Your task to perform on an android device: When is my next meeting? Image 0: 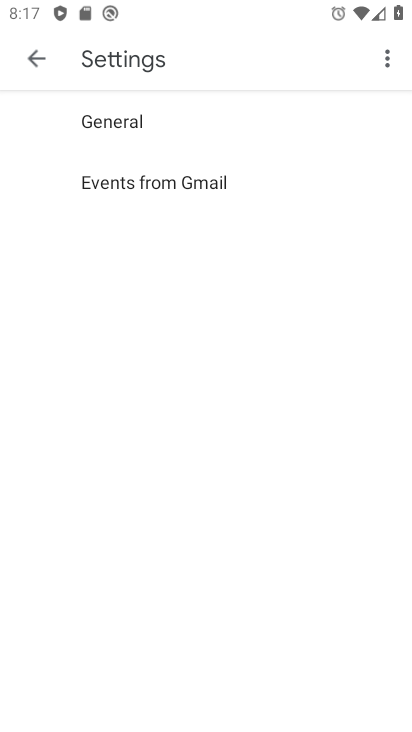
Step 0: press home button
Your task to perform on an android device: When is my next meeting? Image 1: 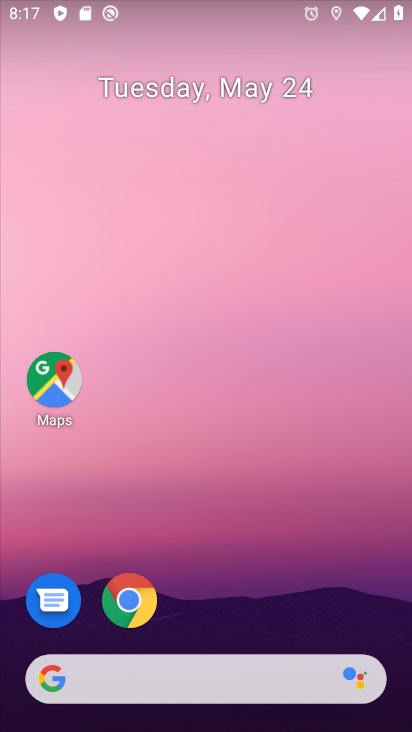
Step 1: drag from (210, 708) to (212, 90)
Your task to perform on an android device: When is my next meeting? Image 2: 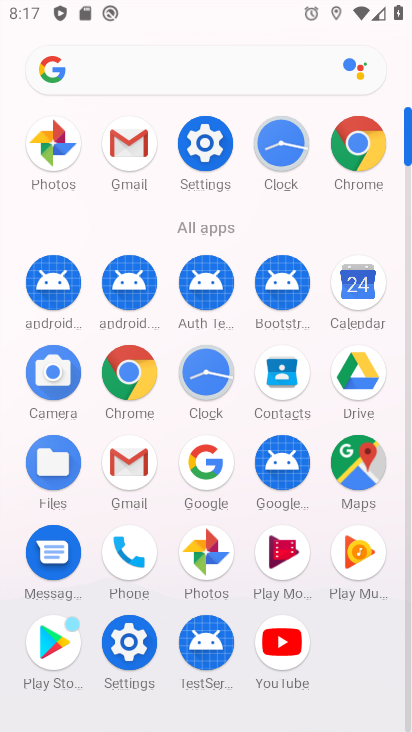
Step 2: click (354, 279)
Your task to perform on an android device: When is my next meeting? Image 3: 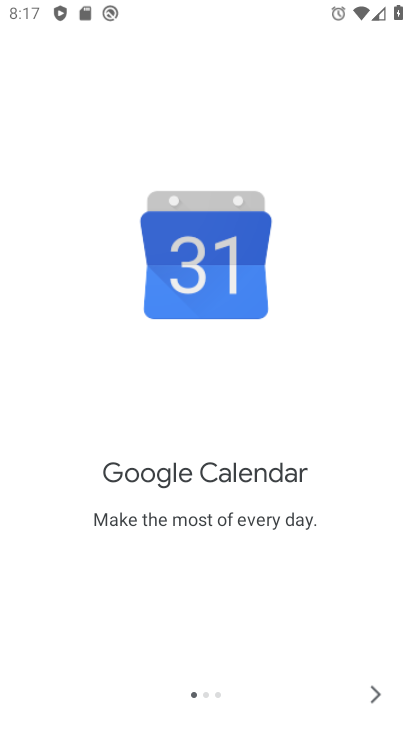
Step 3: click (377, 692)
Your task to perform on an android device: When is my next meeting? Image 4: 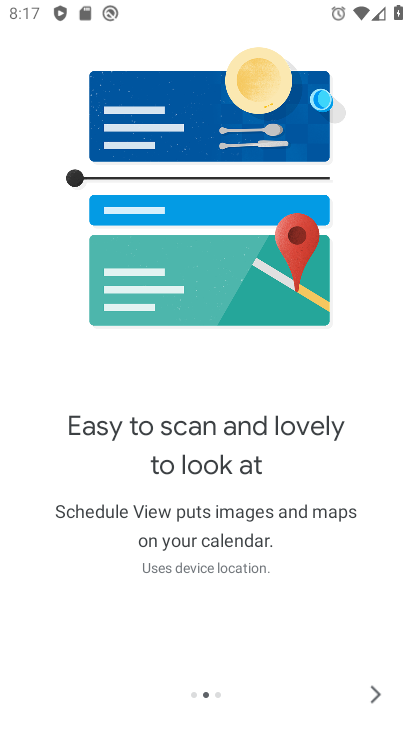
Step 4: click (377, 692)
Your task to perform on an android device: When is my next meeting? Image 5: 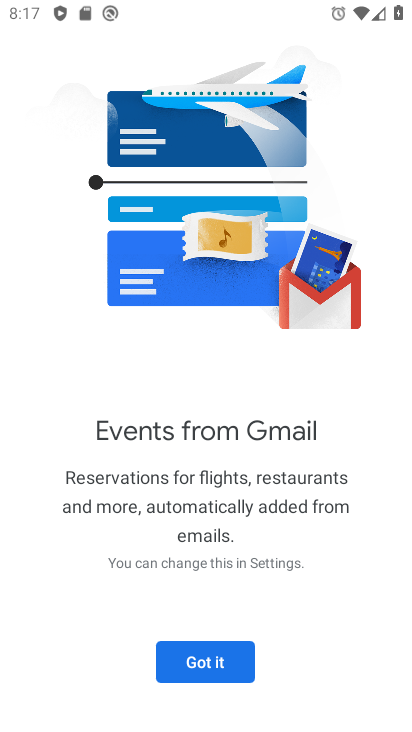
Step 5: click (218, 663)
Your task to perform on an android device: When is my next meeting? Image 6: 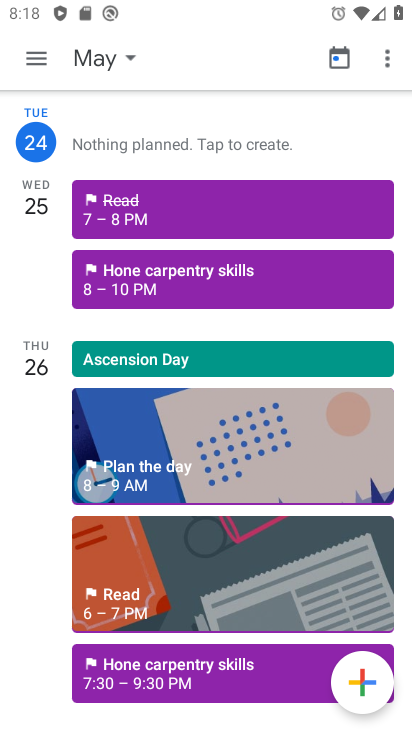
Step 6: click (128, 54)
Your task to perform on an android device: When is my next meeting? Image 7: 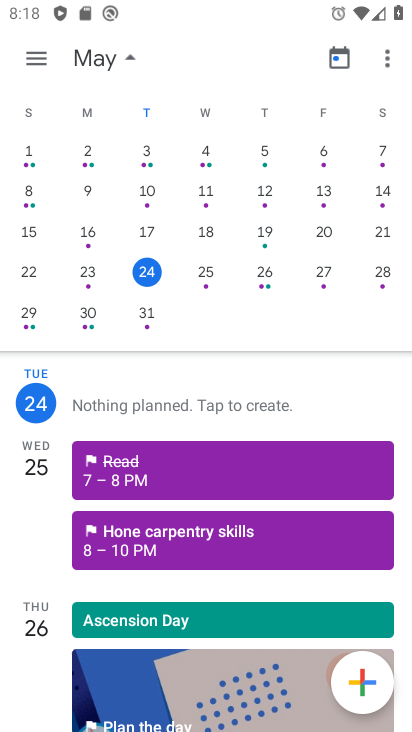
Step 7: click (210, 270)
Your task to perform on an android device: When is my next meeting? Image 8: 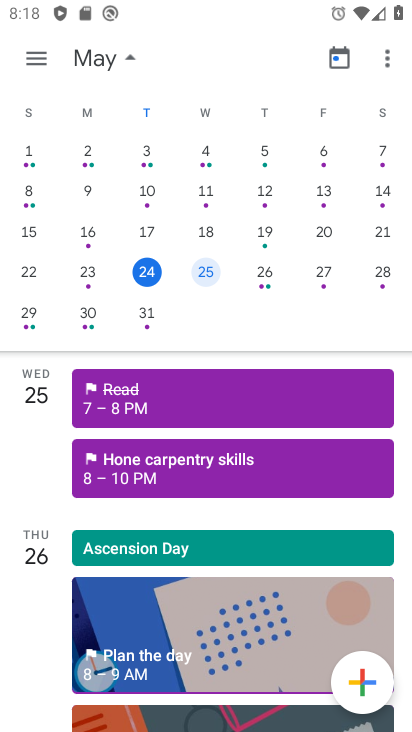
Step 8: click (210, 270)
Your task to perform on an android device: When is my next meeting? Image 9: 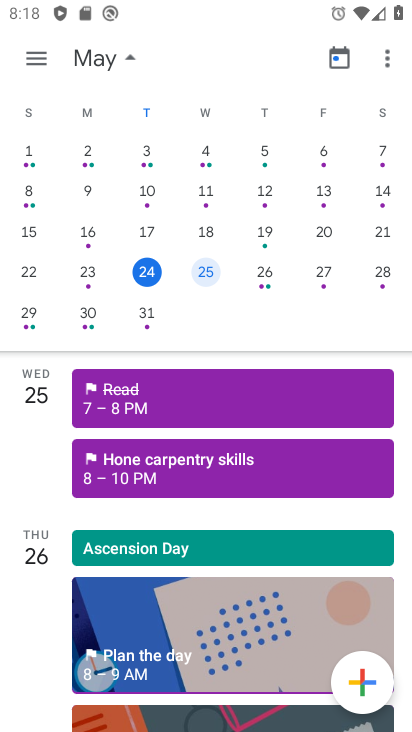
Step 9: click (210, 270)
Your task to perform on an android device: When is my next meeting? Image 10: 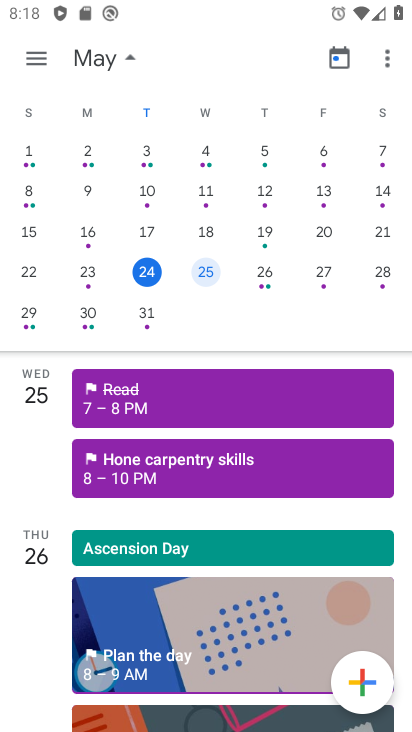
Step 10: click (133, 55)
Your task to perform on an android device: When is my next meeting? Image 11: 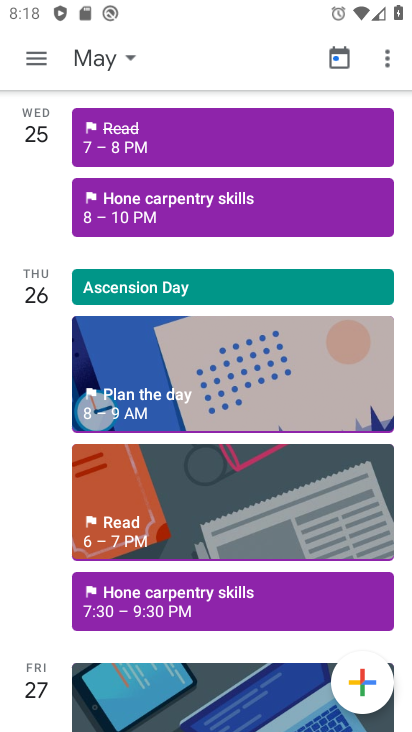
Step 11: task complete